Your task to perform on an android device: install app "Messenger Lite" Image 0: 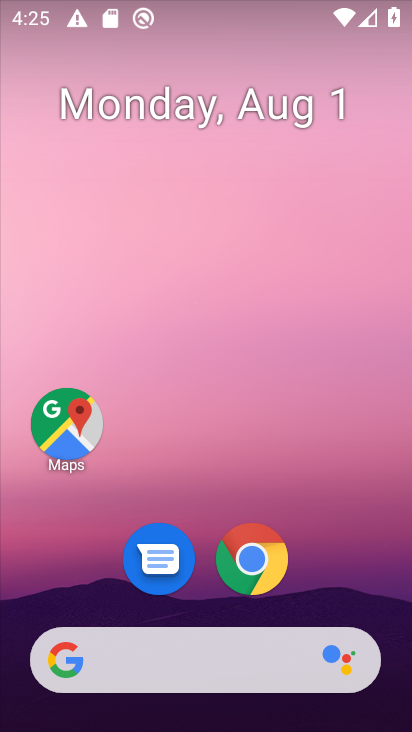
Step 0: drag from (204, 598) to (193, 27)
Your task to perform on an android device: install app "Messenger Lite" Image 1: 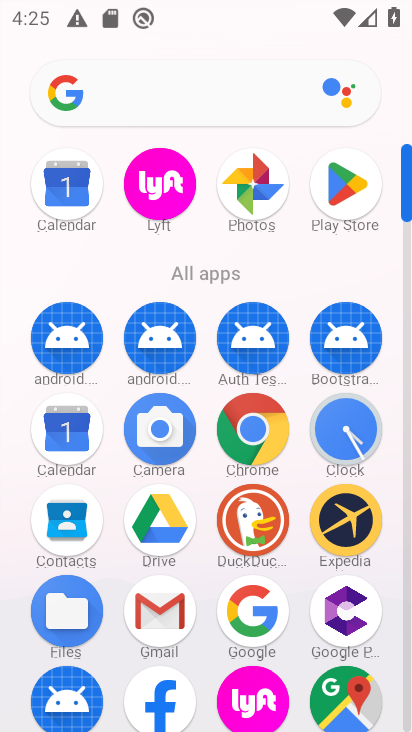
Step 1: click (329, 189)
Your task to perform on an android device: install app "Messenger Lite" Image 2: 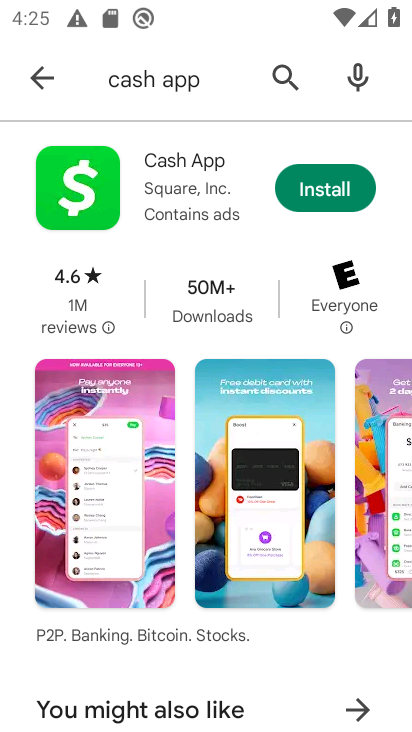
Step 2: click (204, 97)
Your task to perform on an android device: install app "Messenger Lite" Image 3: 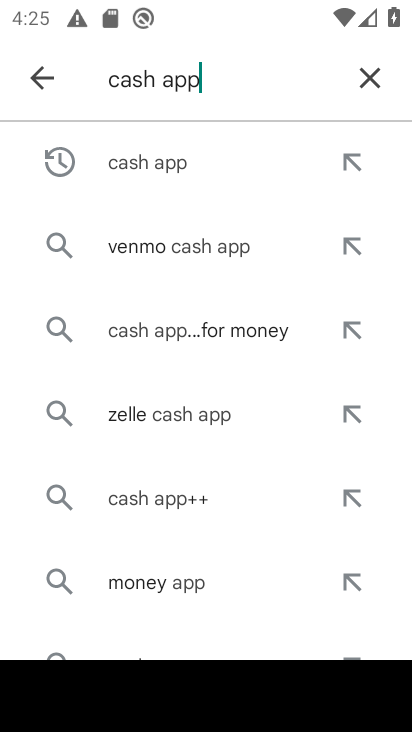
Step 3: click (370, 80)
Your task to perform on an android device: install app "Messenger Lite" Image 4: 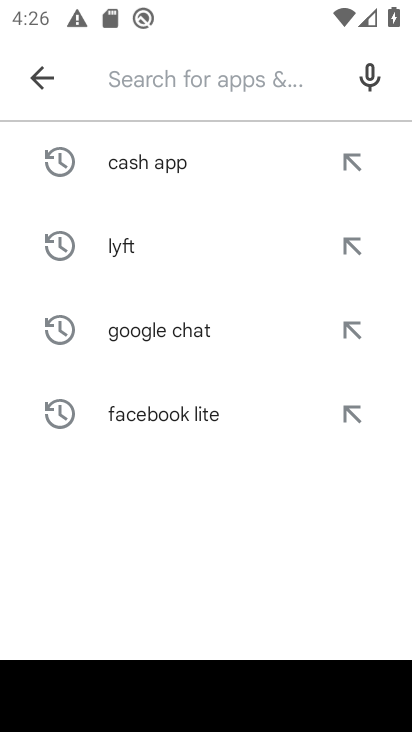
Step 4: type "messenger lite"
Your task to perform on an android device: install app "Messenger Lite" Image 5: 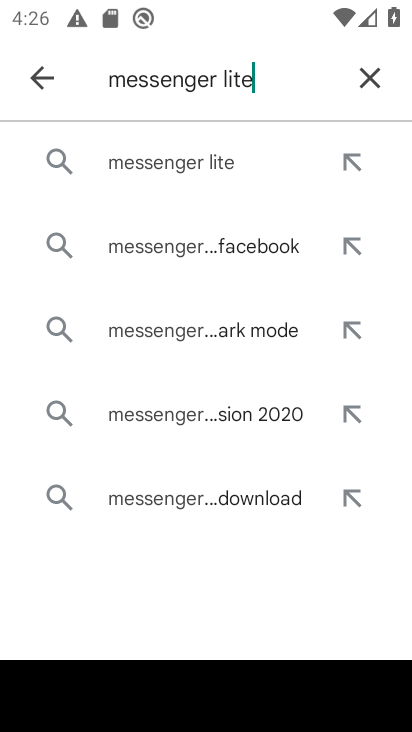
Step 5: click (201, 180)
Your task to perform on an android device: install app "Messenger Lite" Image 6: 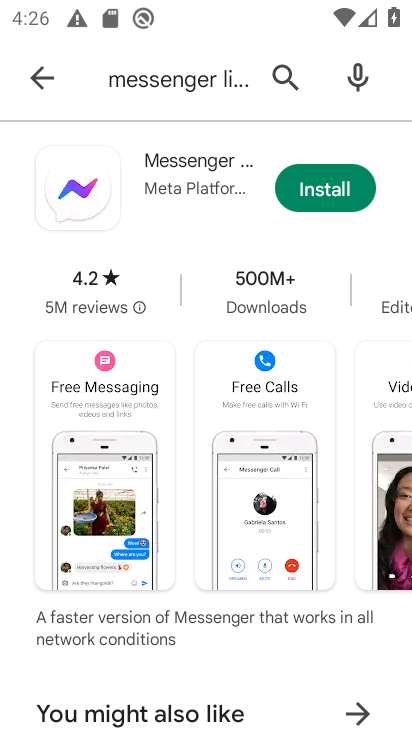
Step 6: click (345, 193)
Your task to perform on an android device: install app "Messenger Lite" Image 7: 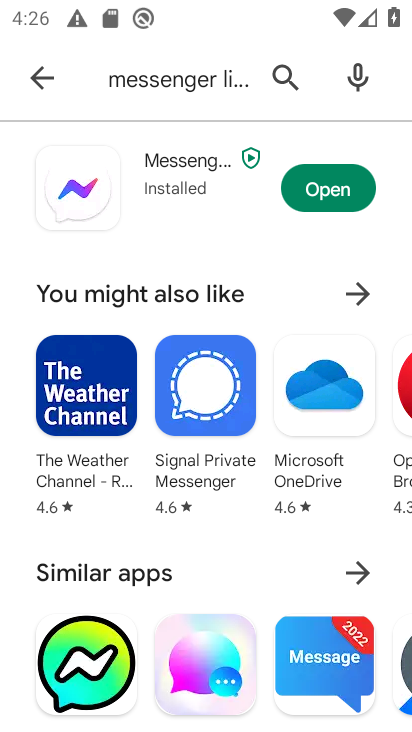
Step 7: task complete